Your task to perform on an android device: add a label to a message in the gmail app Image 0: 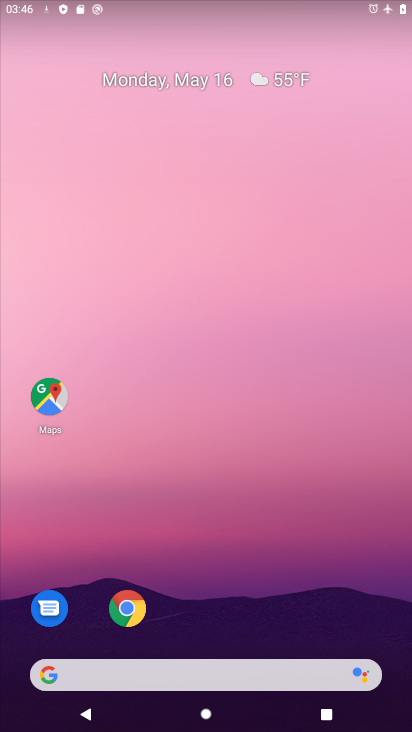
Step 0: drag from (187, 631) to (226, 153)
Your task to perform on an android device: add a label to a message in the gmail app Image 1: 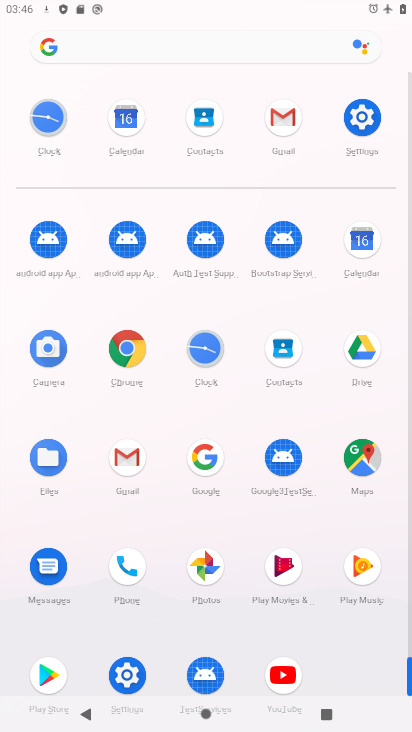
Step 1: click (290, 131)
Your task to perform on an android device: add a label to a message in the gmail app Image 2: 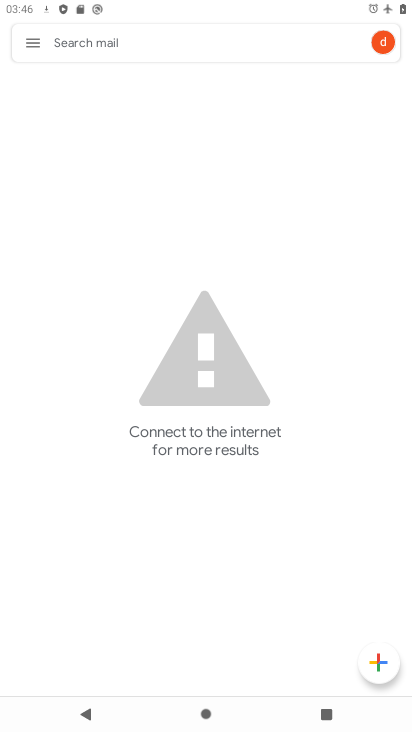
Step 2: click (38, 35)
Your task to perform on an android device: add a label to a message in the gmail app Image 3: 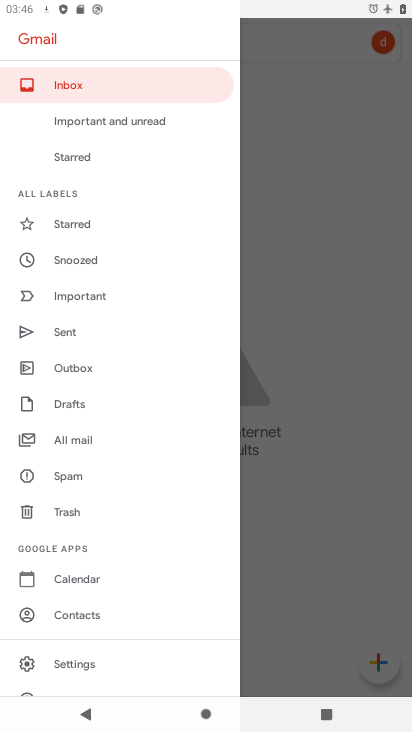
Step 3: click (86, 439)
Your task to perform on an android device: add a label to a message in the gmail app Image 4: 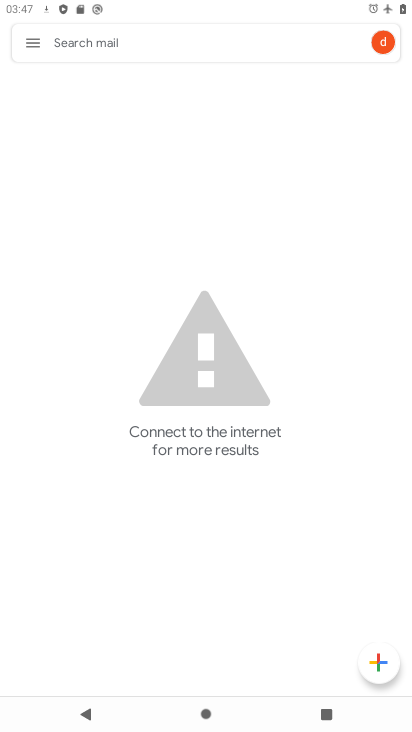
Step 4: task complete